Your task to perform on an android device: toggle wifi Image 0: 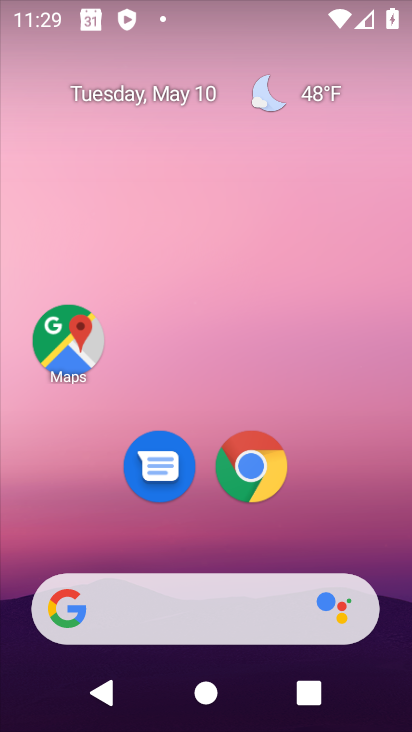
Step 0: drag from (129, 11) to (179, 528)
Your task to perform on an android device: toggle wifi Image 1: 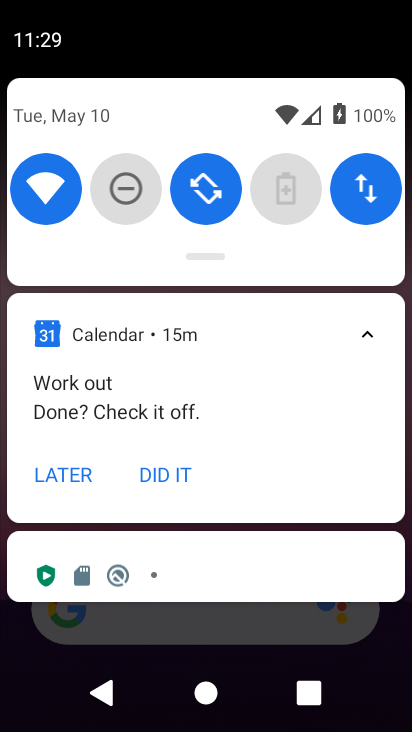
Step 1: click (40, 184)
Your task to perform on an android device: toggle wifi Image 2: 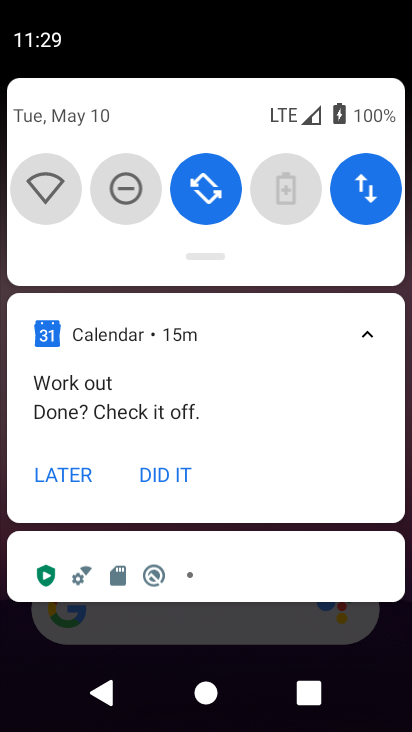
Step 2: task complete